Your task to perform on an android device: Go to settings Image 0: 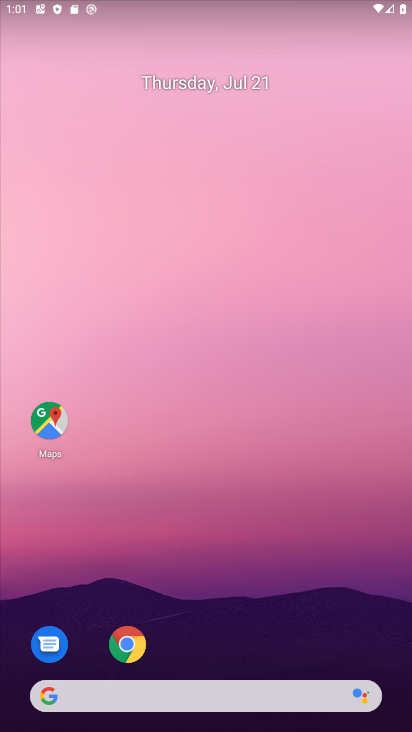
Step 0: drag from (197, 667) to (152, 85)
Your task to perform on an android device: Go to settings Image 1: 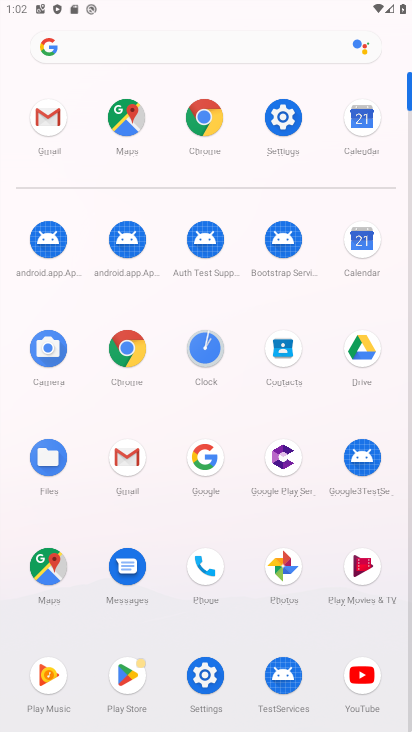
Step 1: click (278, 118)
Your task to perform on an android device: Go to settings Image 2: 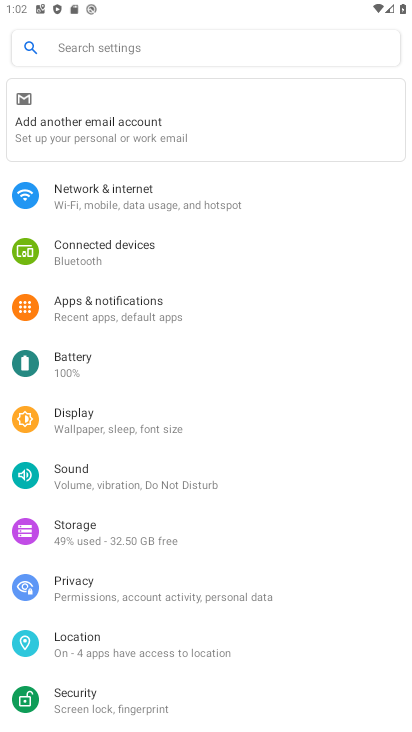
Step 2: task complete